Your task to perform on an android device: toggle sleep mode Image 0: 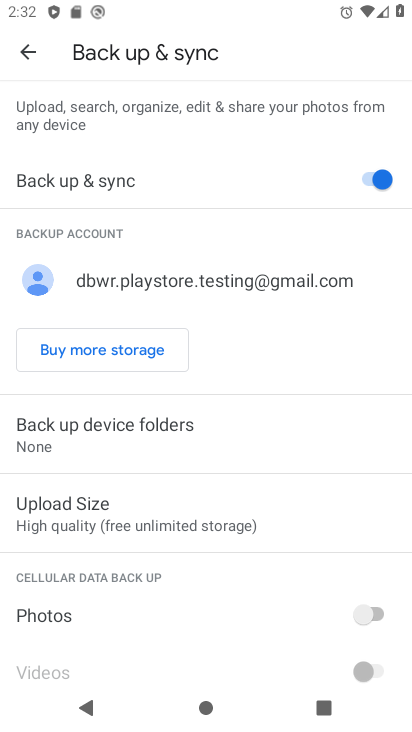
Step 0: press home button
Your task to perform on an android device: toggle sleep mode Image 1: 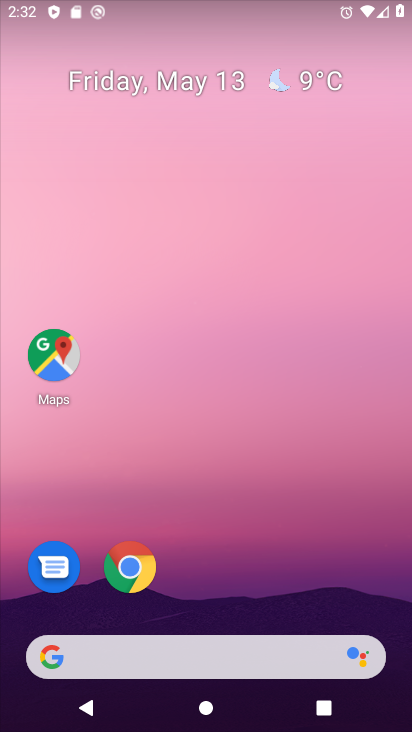
Step 1: drag from (203, 575) to (273, 12)
Your task to perform on an android device: toggle sleep mode Image 2: 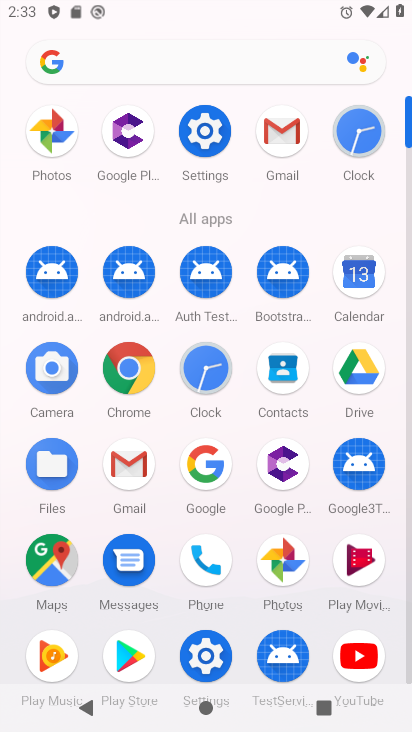
Step 2: click (200, 146)
Your task to perform on an android device: toggle sleep mode Image 3: 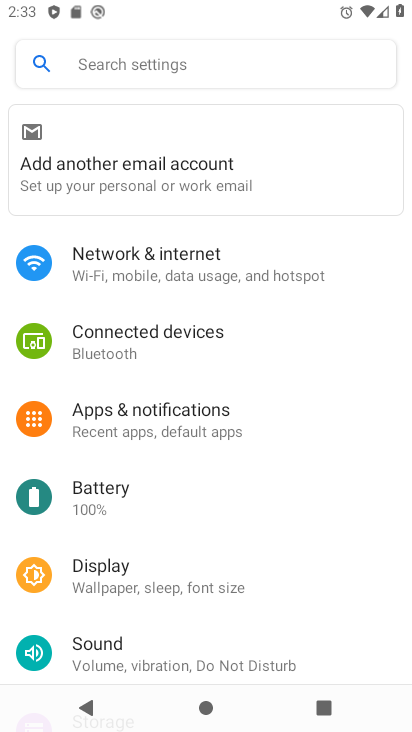
Step 3: click (184, 63)
Your task to perform on an android device: toggle sleep mode Image 4: 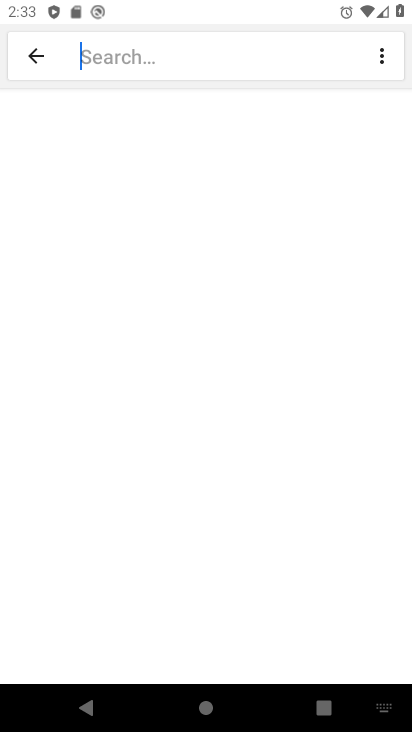
Step 4: type "sleep mode"
Your task to perform on an android device: toggle sleep mode Image 5: 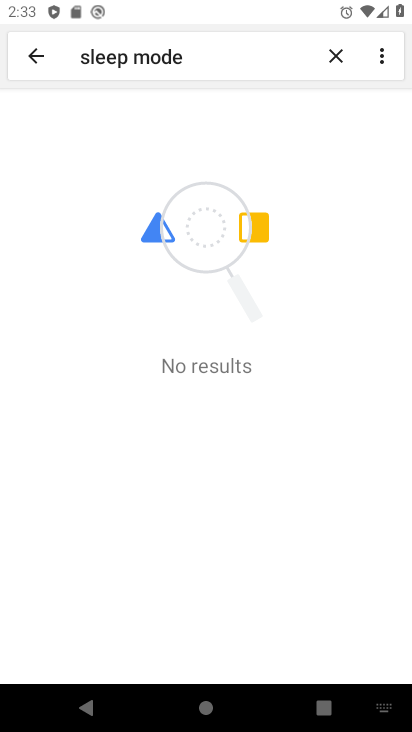
Step 5: task complete